Your task to perform on an android device: Open eBay Image 0: 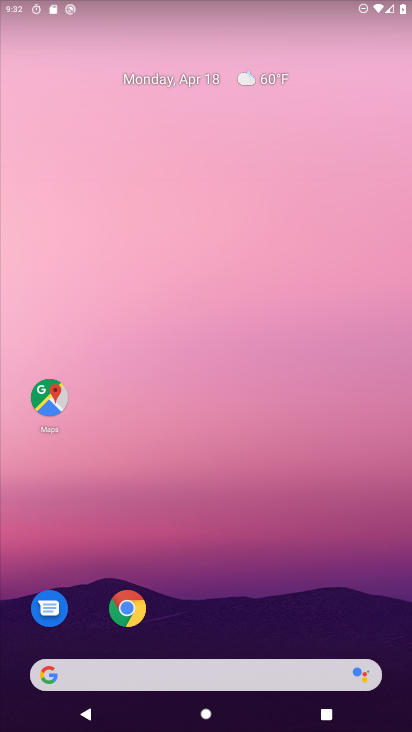
Step 0: click (137, 598)
Your task to perform on an android device: Open eBay Image 1: 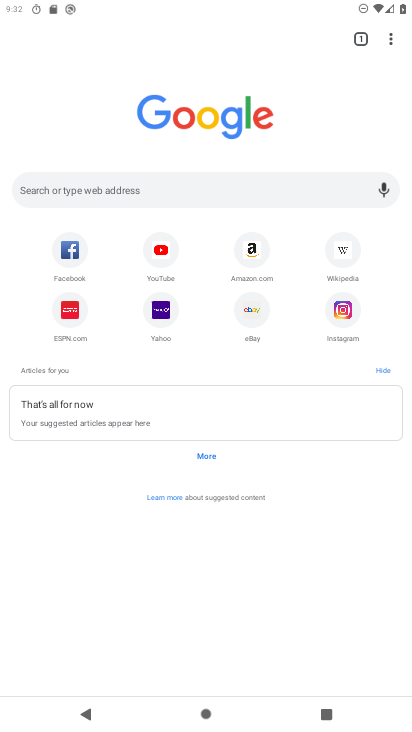
Step 1: click (146, 195)
Your task to perform on an android device: Open eBay Image 2: 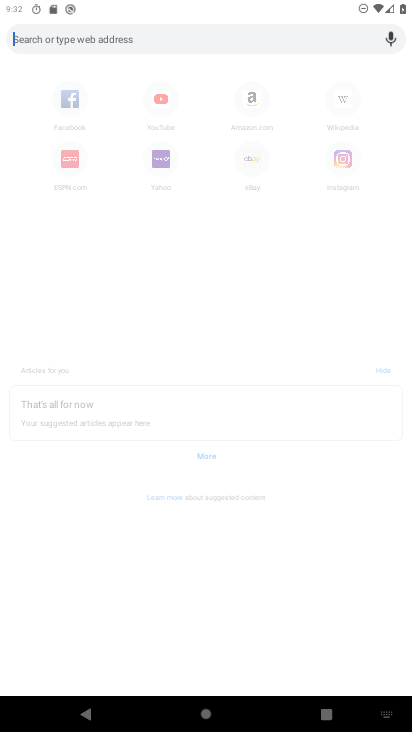
Step 2: type "eBay"
Your task to perform on an android device: Open eBay Image 3: 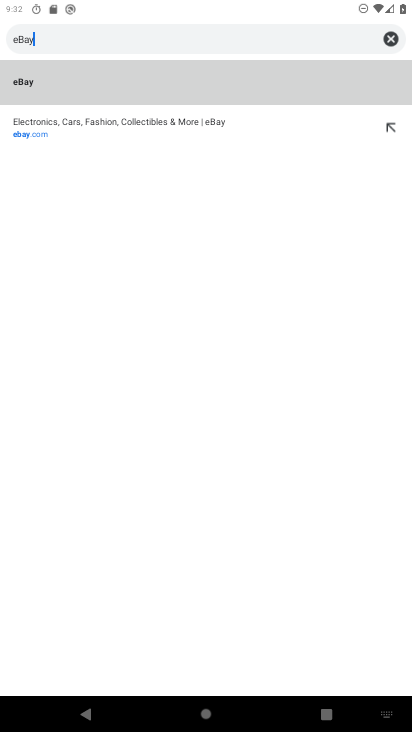
Step 3: click (41, 126)
Your task to perform on an android device: Open eBay Image 4: 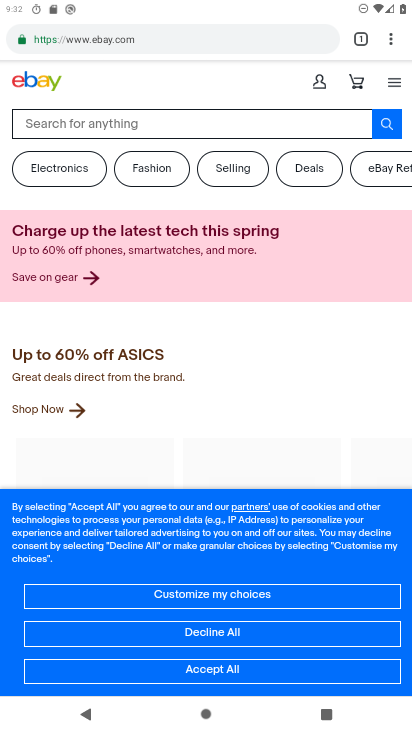
Step 4: task complete